Your task to perform on an android device: Search for Mexican restaurants on Maps Image 0: 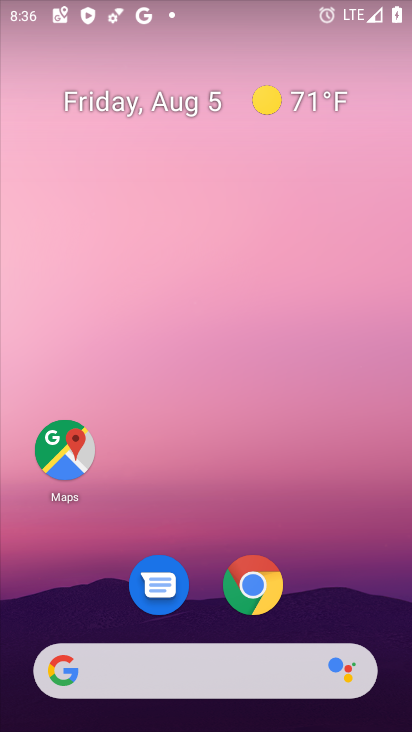
Step 0: click (61, 444)
Your task to perform on an android device: Search for Mexican restaurants on Maps Image 1: 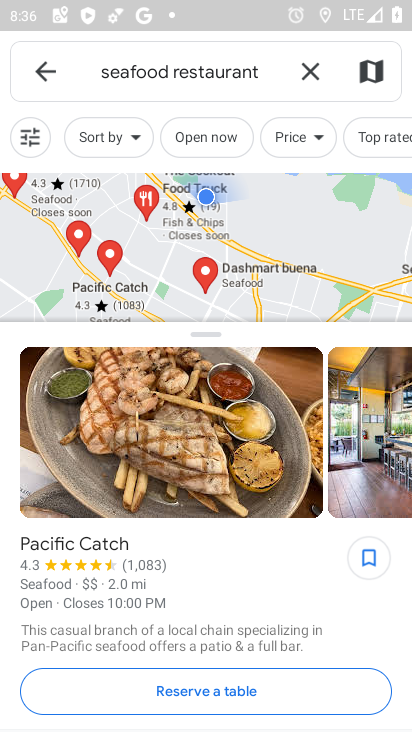
Step 1: click (306, 67)
Your task to perform on an android device: Search for Mexican restaurants on Maps Image 2: 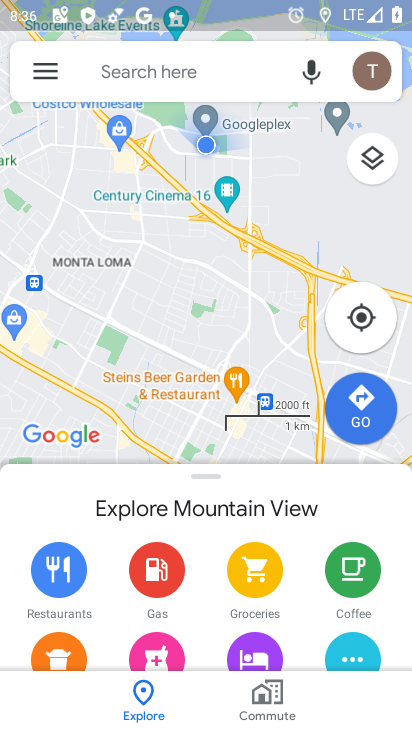
Step 2: click (192, 67)
Your task to perform on an android device: Search for Mexican restaurants on Maps Image 3: 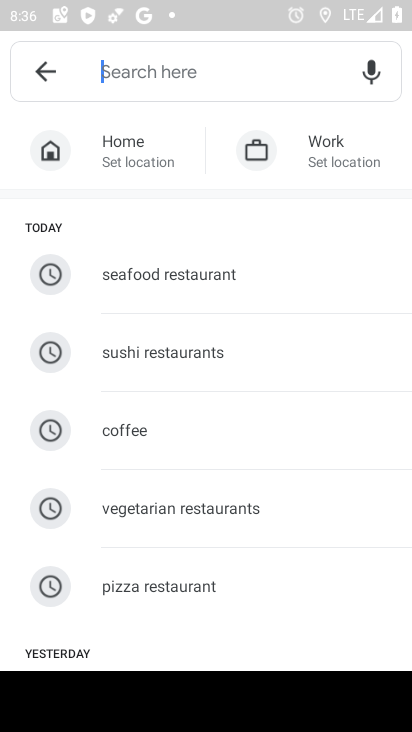
Step 3: drag from (258, 552) to (314, 101)
Your task to perform on an android device: Search for Mexican restaurants on Maps Image 4: 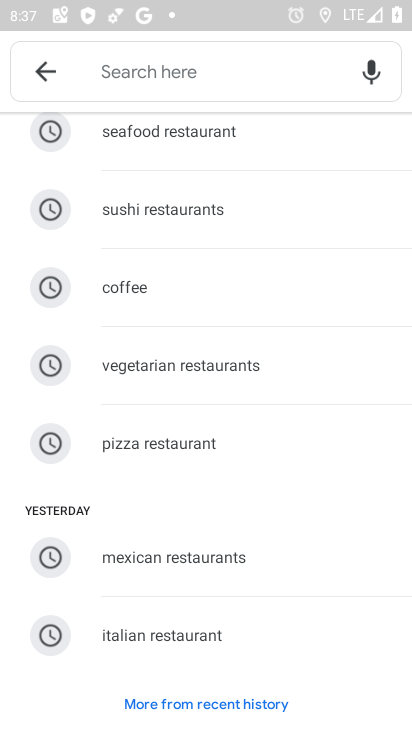
Step 4: click (188, 548)
Your task to perform on an android device: Search for Mexican restaurants on Maps Image 5: 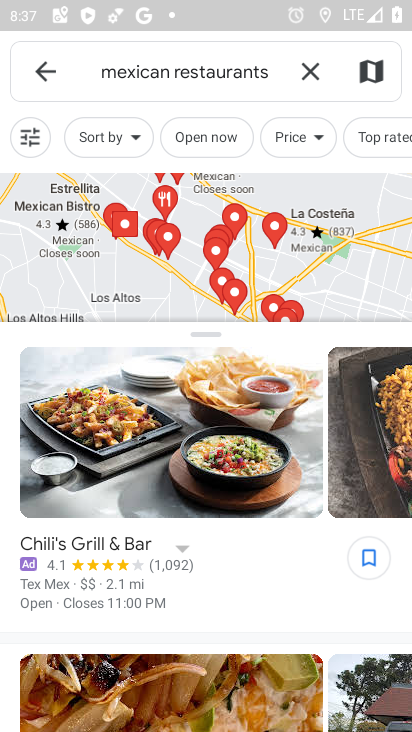
Step 5: task complete